Your task to perform on an android device: turn off location history Image 0: 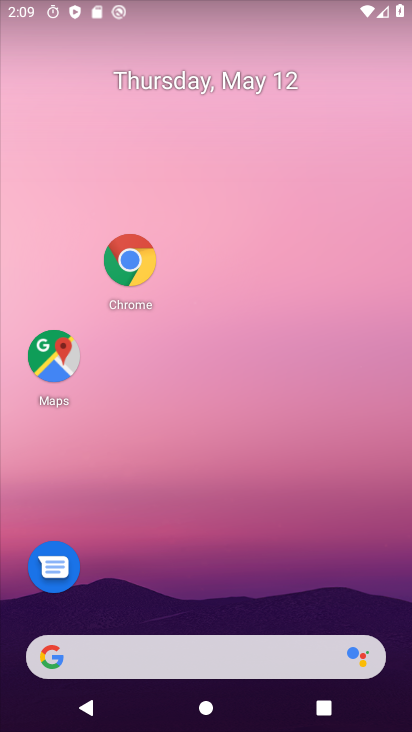
Step 0: drag from (206, 577) to (156, 234)
Your task to perform on an android device: turn off location history Image 1: 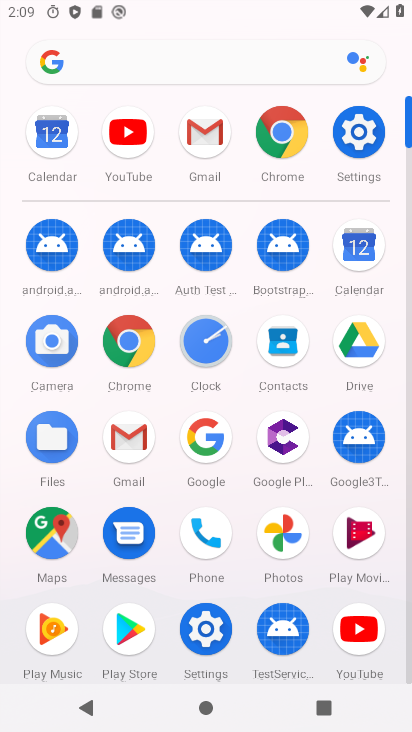
Step 1: click (357, 142)
Your task to perform on an android device: turn off location history Image 2: 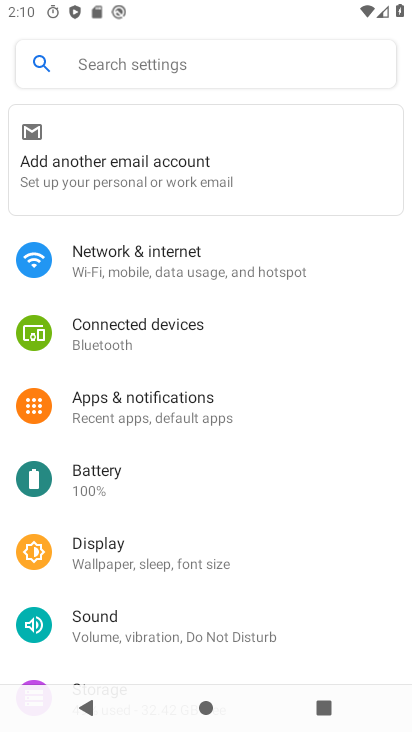
Step 2: drag from (142, 631) to (126, 324)
Your task to perform on an android device: turn off location history Image 3: 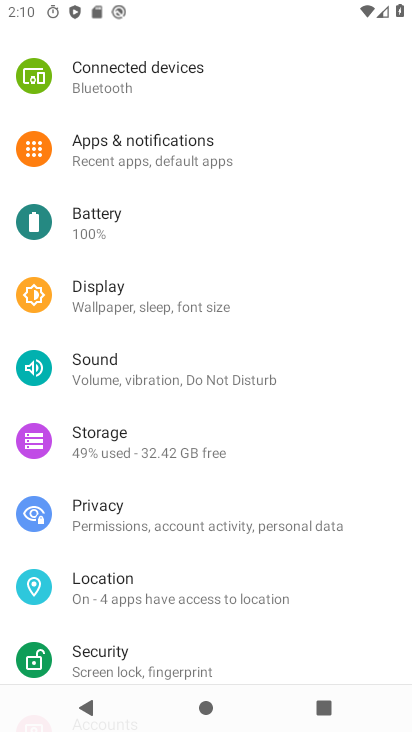
Step 3: click (130, 585)
Your task to perform on an android device: turn off location history Image 4: 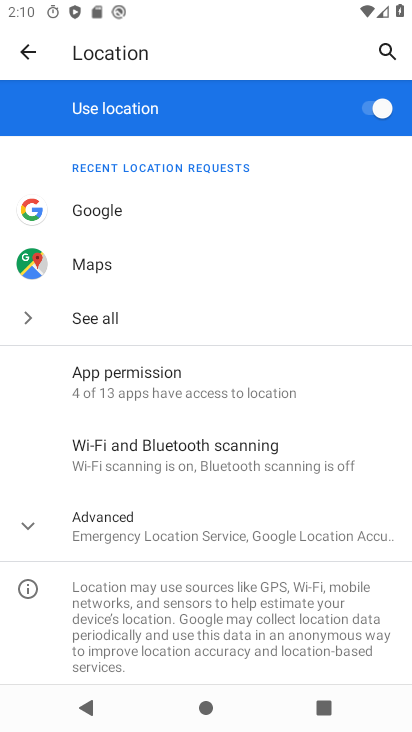
Step 4: click (78, 530)
Your task to perform on an android device: turn off location history Image 5: 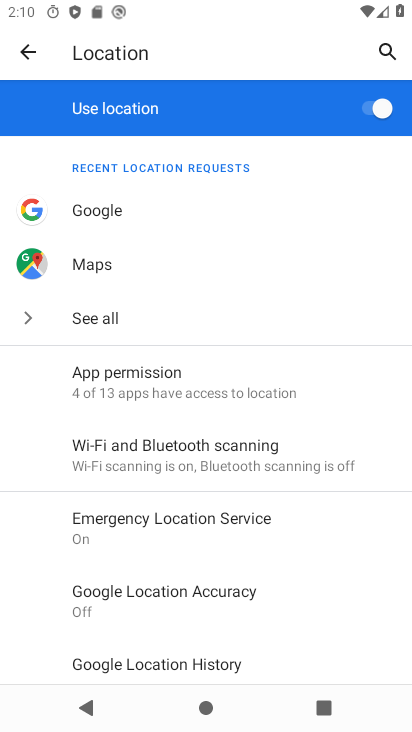
Step 5: click (189, 660)
Your task to perform on an android device: turn off location history Image 6: 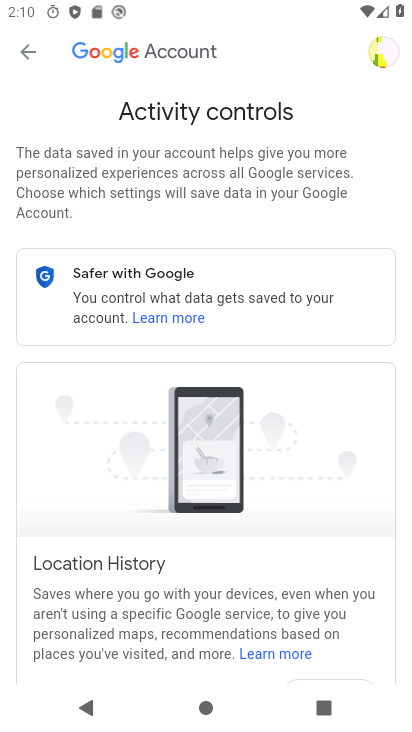
Step 6: task complete